Your task to perform on an android device: Go to display settings Image 0: 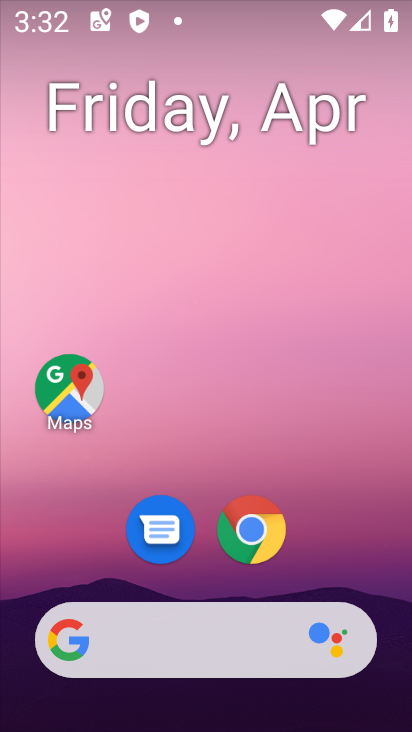
Step 0: drag from (338, 559) to (338, 223)
Your task to perform on an android device: Go to display settings Image 1: 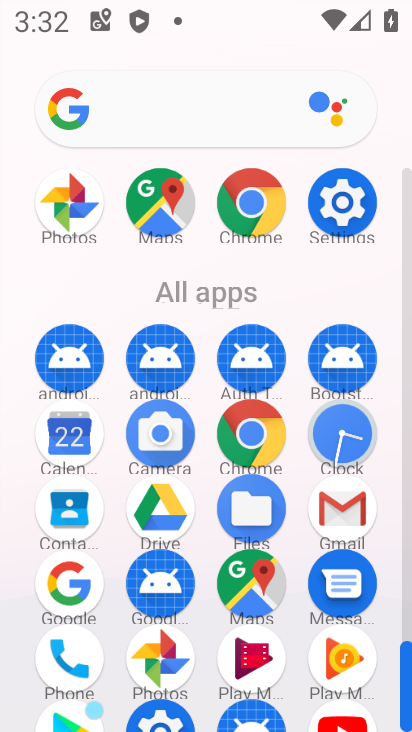
Step 1: click (345, 201)
Your task to perform on an android device: Go to display settings Image 2: 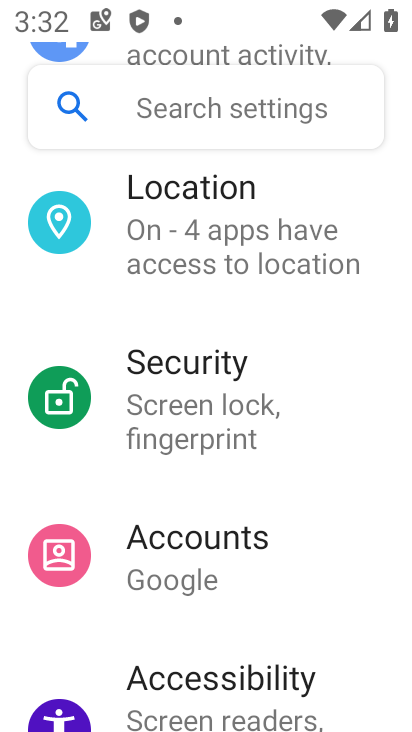
Step 2: drag from (204, 346) to (205, 407)
Your task to perform on an android device: Go to display settings Image 3: 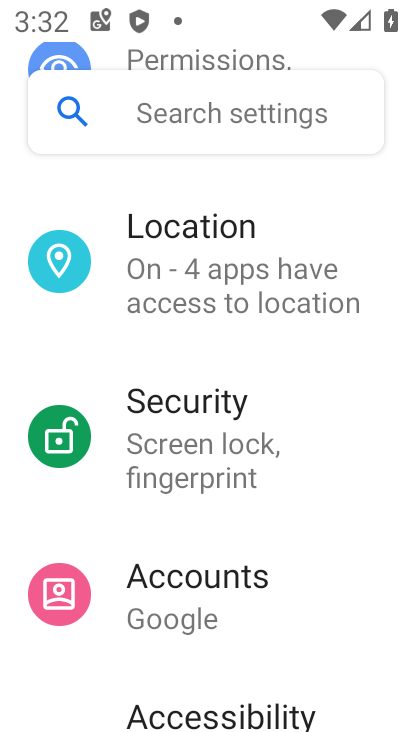
Step 3: drag from (224, 304) to (233, 382)
Your task to perform on an android device: Go to display settings Image 4: 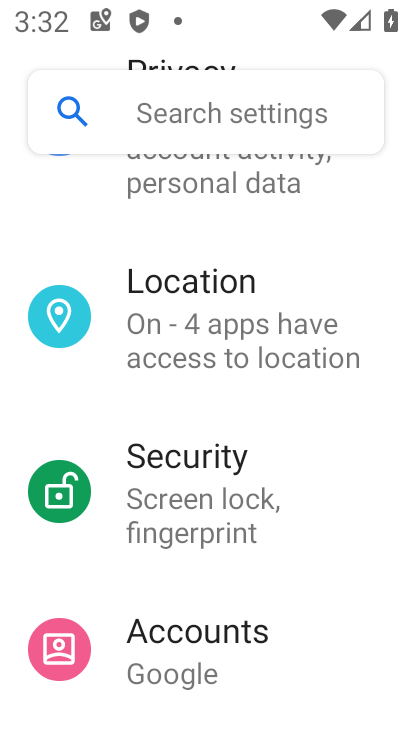
Step 4: drag from (217, 304) to (210, 451)
Your task to perform on an android device: Go to display settings Image 5: 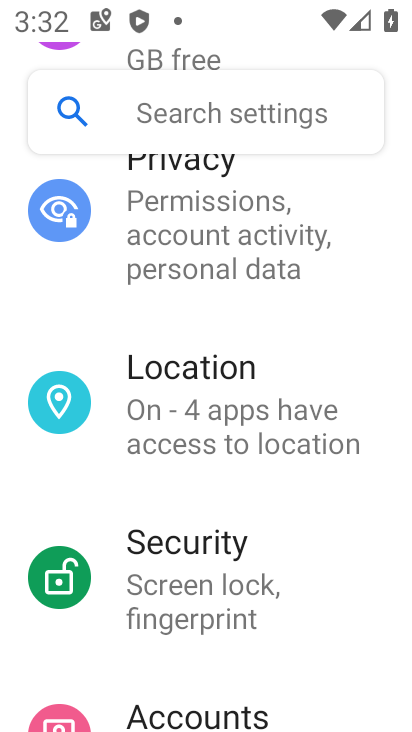
Step 5: drag from (204, 351) to (209, 491)
Your task to perform on an android device: Go to display settings Image 6: 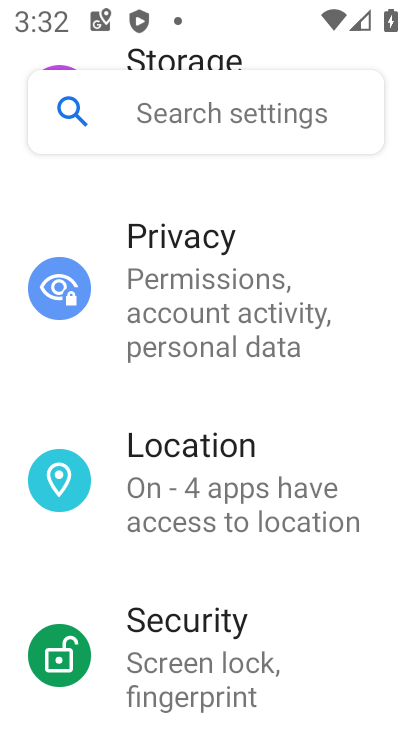
Step 6: drag from (196, 384) to (197, 490)
Your task to perform on an android device: Go to display settings Image 7: 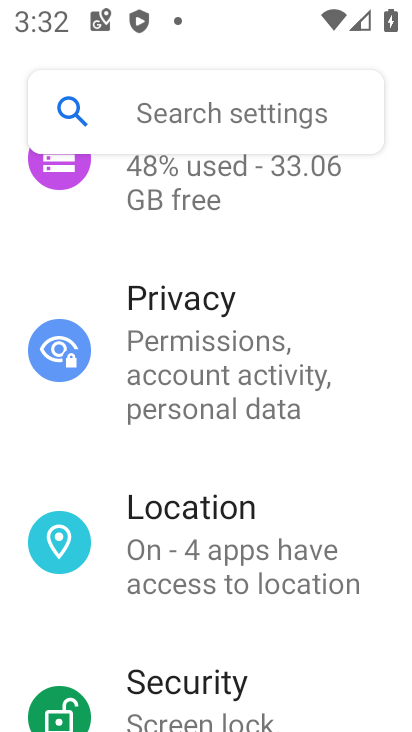
Step 7: drag from (202, 419) to (209, 490)
Your task to perform on an android device: Go to display settings Image 8: 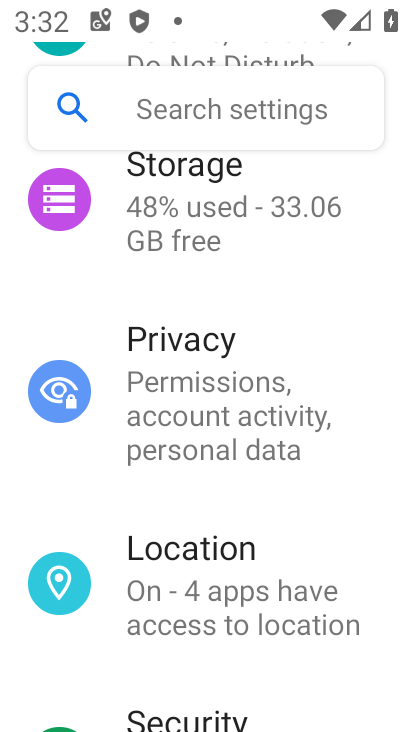
Step 8: drag from (151, 364) to (150, 490)
Your task to perform on an android device: Go to display settings Image 9: 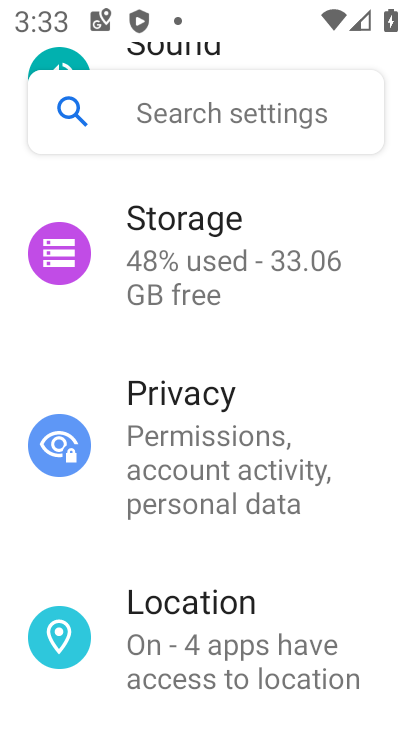
Step 9: drag from (161, 387) to (177, 470)
Your task to perform on an android device: Go to display settings Image 10: 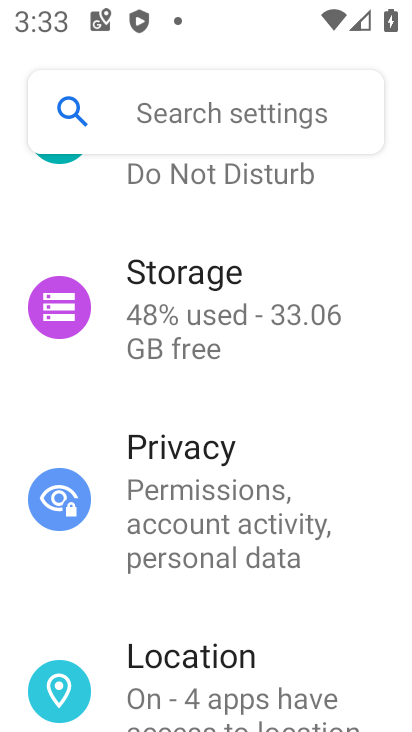
Step 10: drag from (164, 379) to (190, 466)
Your task to perform on an android device: Go to display settings Image 11: 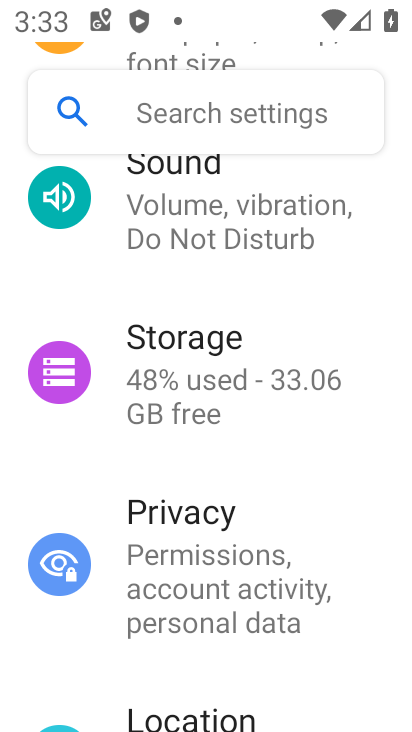
Step 11: drag from (174, 382) to (188, 472)
Your task to perform on an android device: Go to display settings Image 12: 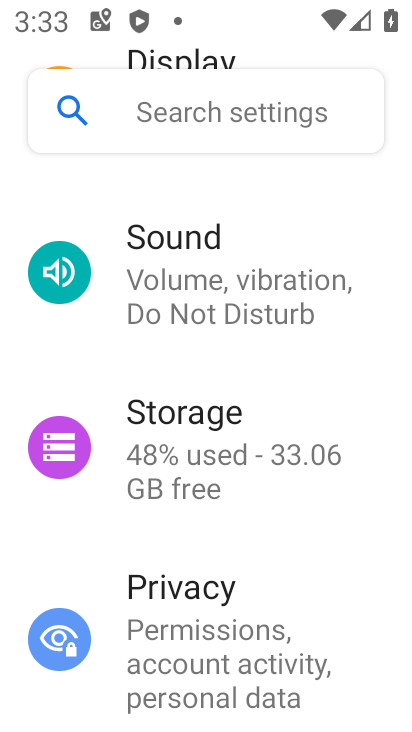
Step 12: drag from (185, 402) to (188, 468)
Your task to perform on an android device: Go to display settings Image 13: 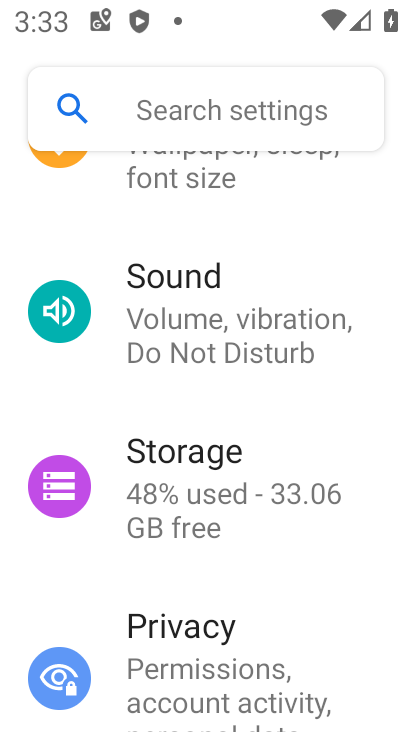
Step 13: drag from (182, 398) to (201, 480)
Your task to perform on an android device: Go to display settings Image 14: 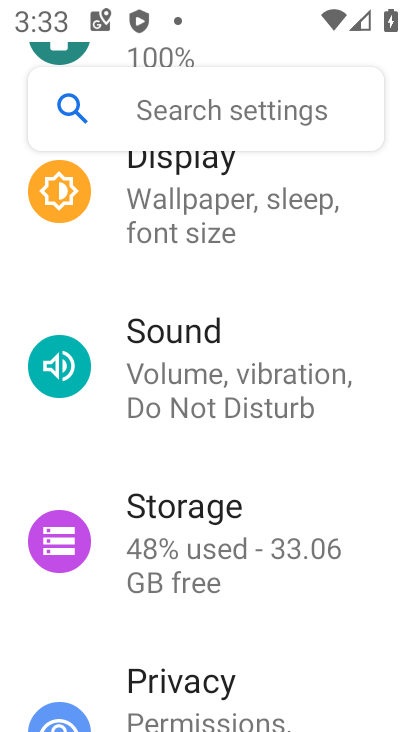
Step 14: click (212, 243)
Your task to perform on an android device: Go to display settings Image 15: 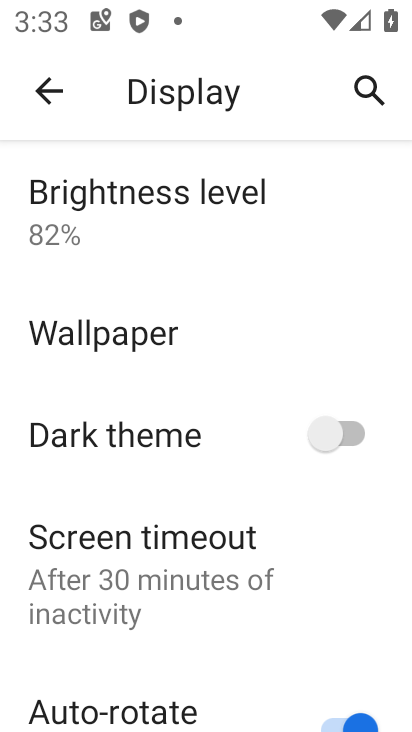
Step 15: task complete